Your task to perform on an android device: When is my next appointment? Image 0: 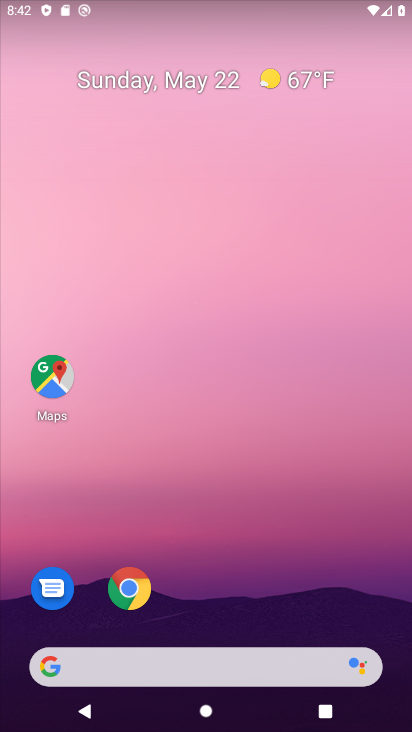
Step 0: drag from (230, 605) to (233, 227)
Your task to perform on an android device: When is my next appointment? Image 1: 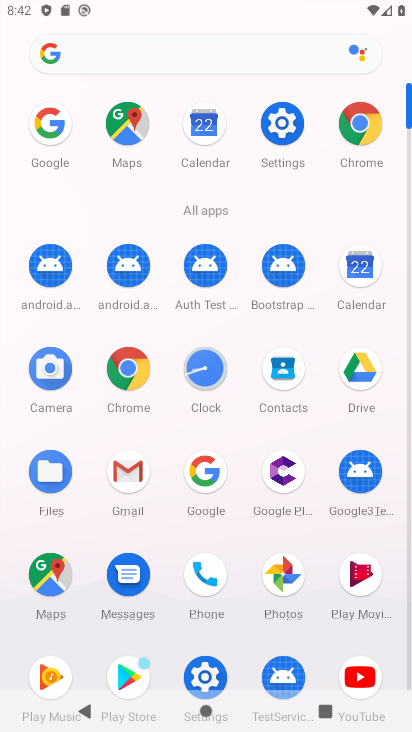
Step 1: click (355, 271)
Your task to perform on an android device: When is my next appointment? Image 2: 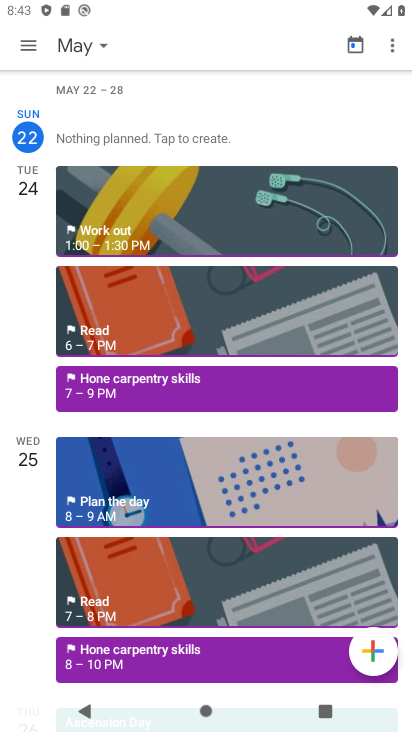
Step 2: task complete